Your task to perform on an android device: What's the weather? Image 0: 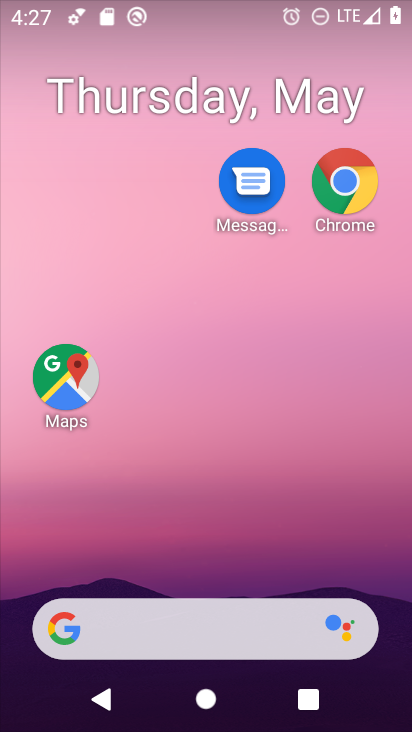
Step 0: drag from (243, 639) to (373, 4)
Your task to perform on an android device: What's the weather? Image 1: 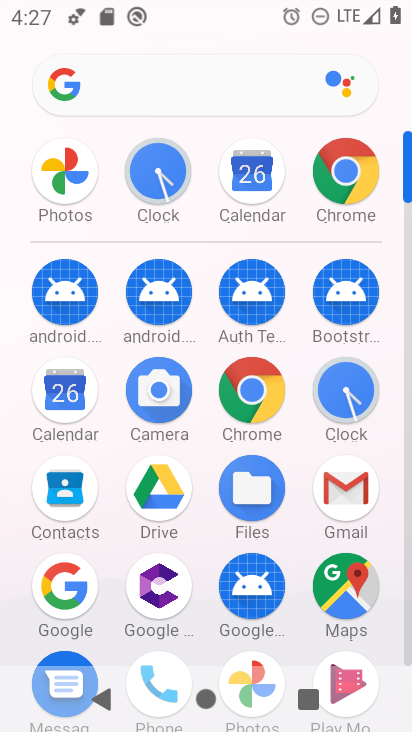
Step 1: click (74, 409)
Your task to perform on an android device: What's the weather? Image 2: 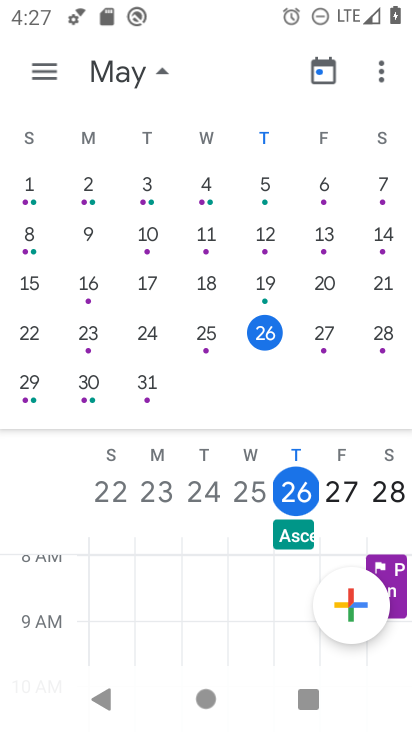
Step 2: press home button
Your task to perform on an android device: What's the weather? Image 3: 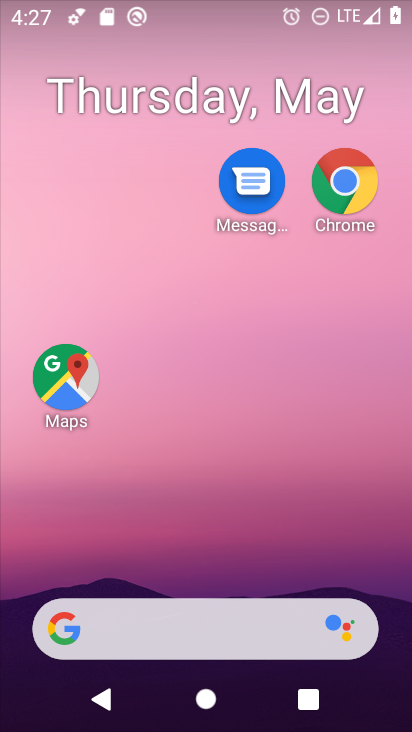
Step 3: drag from (35, 295) to (397, 316)
Your task to perform on an android device: What's the weather? Image 4: 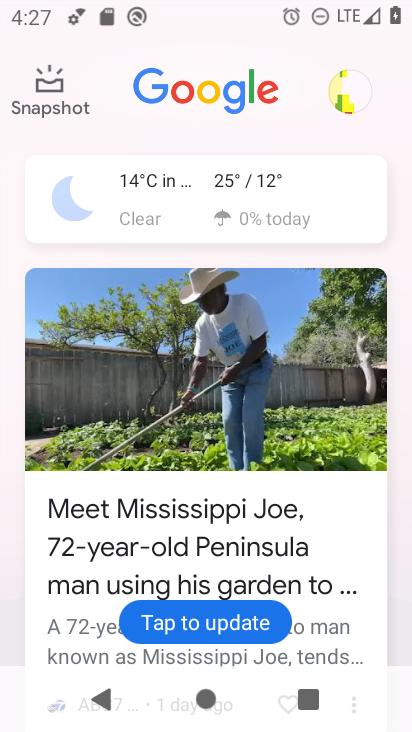
Step 4: click (281, 217)
Your task to perform on an android device: What's the weather? Image 5: 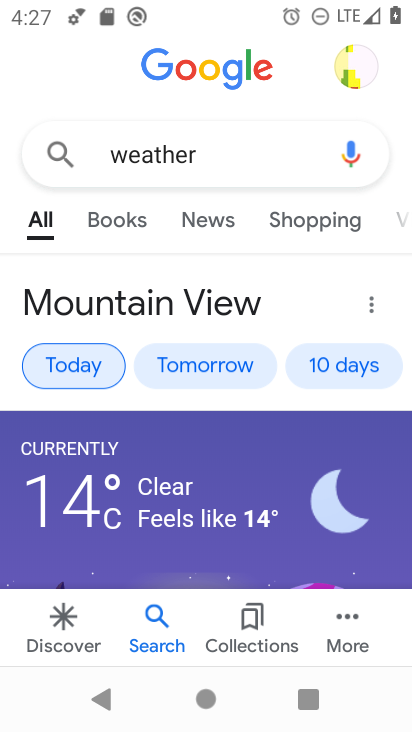
Step 5: task complete